Your task to perform on an android device: Go to Yahoo.com Image 0: 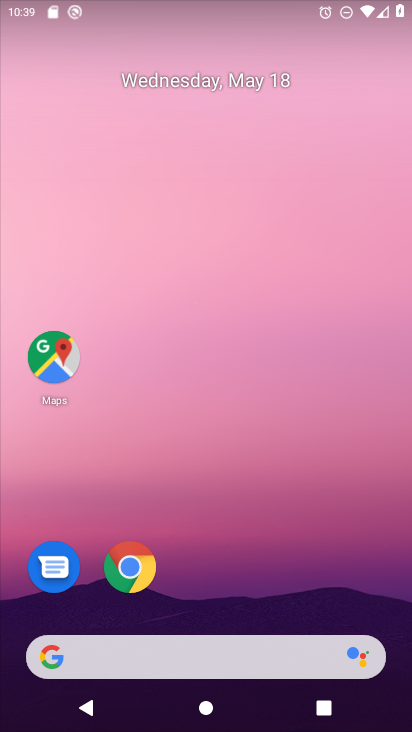
Step 0: drag from (243, 687) to (320, 154)
Your task to perform on an android device: Go to Yahoo.com Image 1: 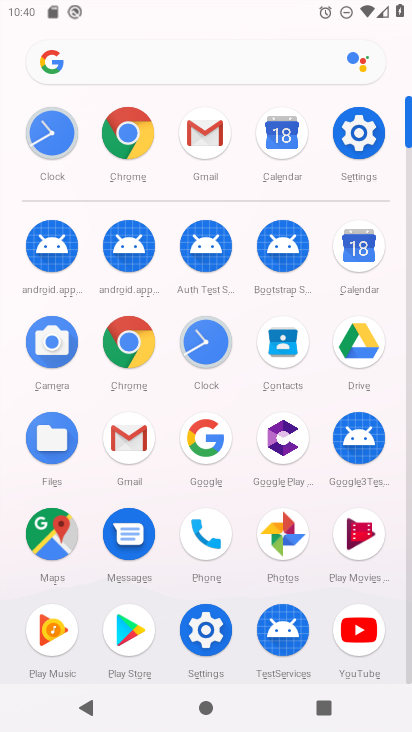
Step 1: click (137, 142)
Your task to perform on an android device: Go to Yahoo.com Image 2: 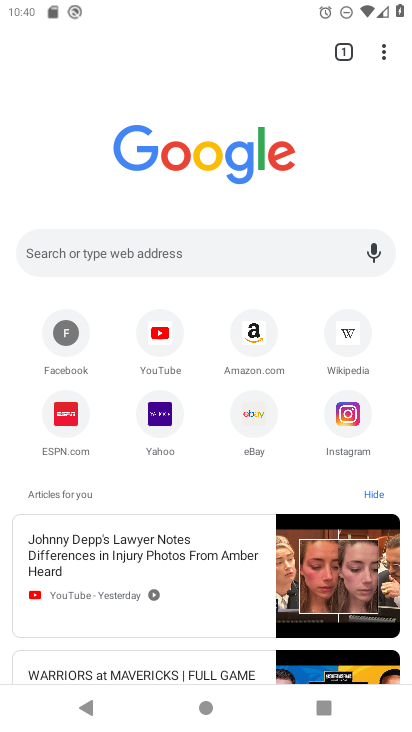
Step 2: click (169, 432)
Your task to perform on an android device: Go to Yahoo.com Image 3: 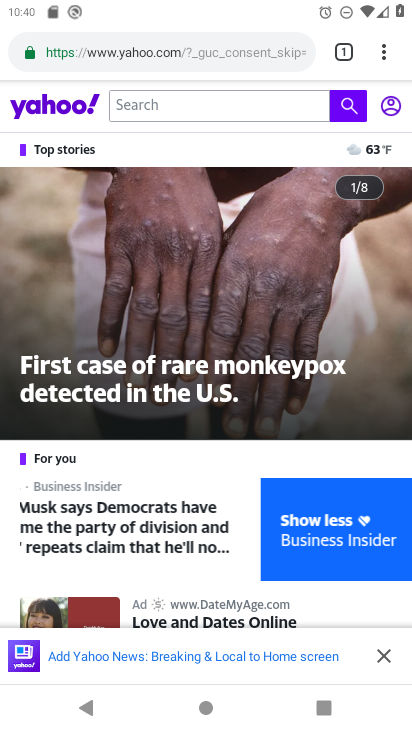
Step 3: task complete